Your task to perform on an android device: Open the stopwatch Image 0: 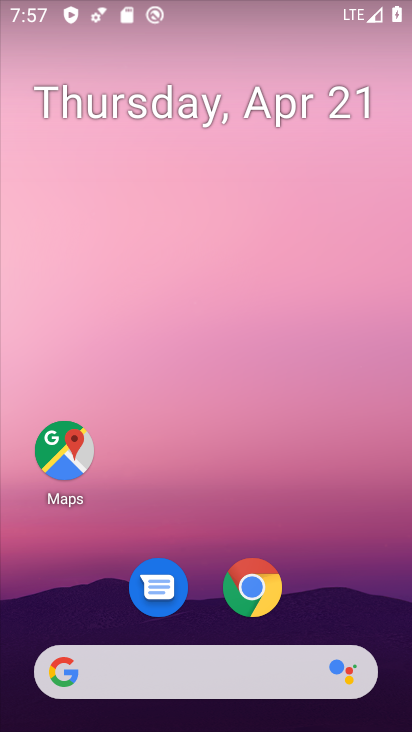
Step 0: click (383, 272)
Your task to perform on an android device: Open the stopwatch Image 1: 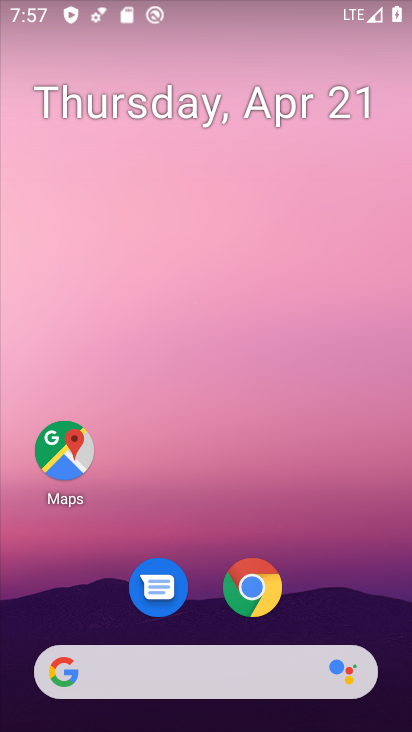
Step 1: drag from (380, 422) to (374, 236)
Your task to perform on an android device: Open the stopwatch Image 2: 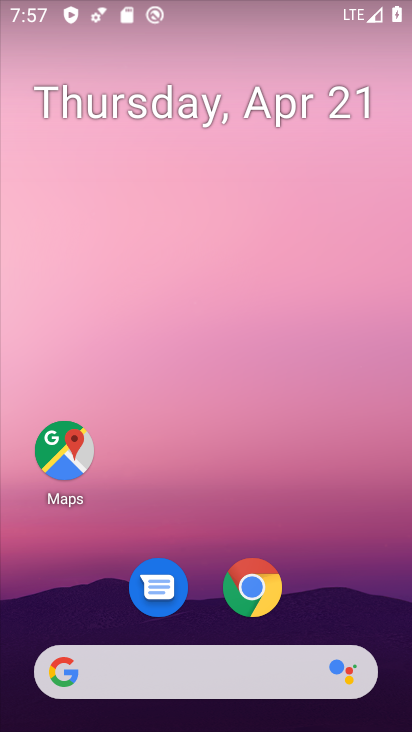
Step 2: drag from (373, 286) to (370, 206)
Your task to perform on an android device: Open the stopwatch Image 3: 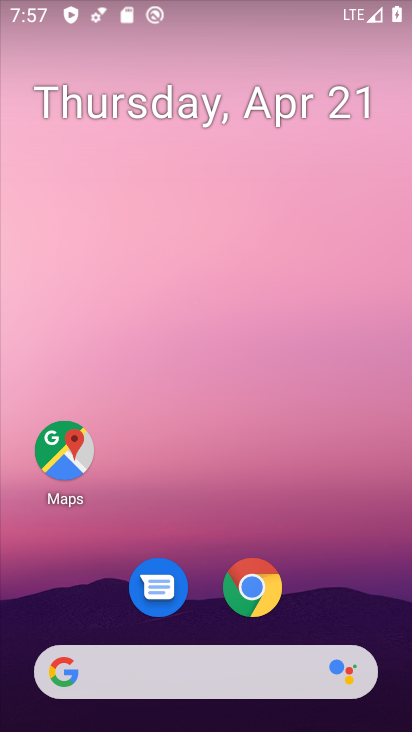
Step 3: drag from (390, 602) to (388, 189)
Your task to perform on an android device: Open the stopwatch Image 4: 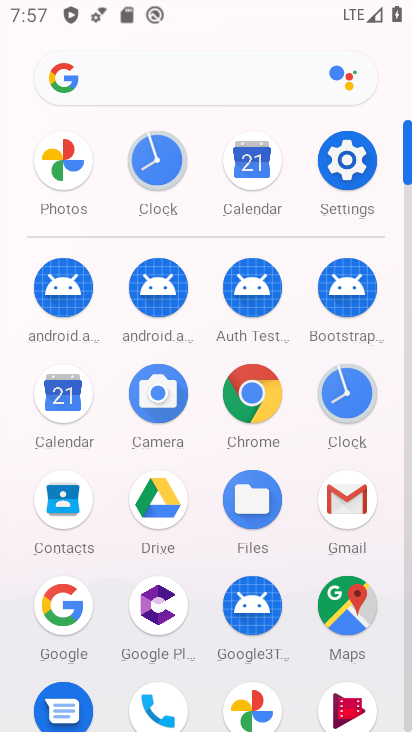
Step 4: click (339, 405)
Your task to perform on an android device: Open the stopwatch Image 5: 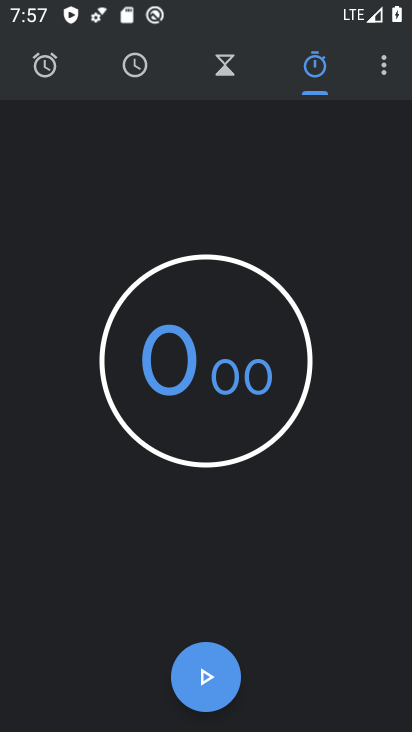
Step 5: task complete